Your task to perform on an android device: clear all cookies in the chrome app Image 0: 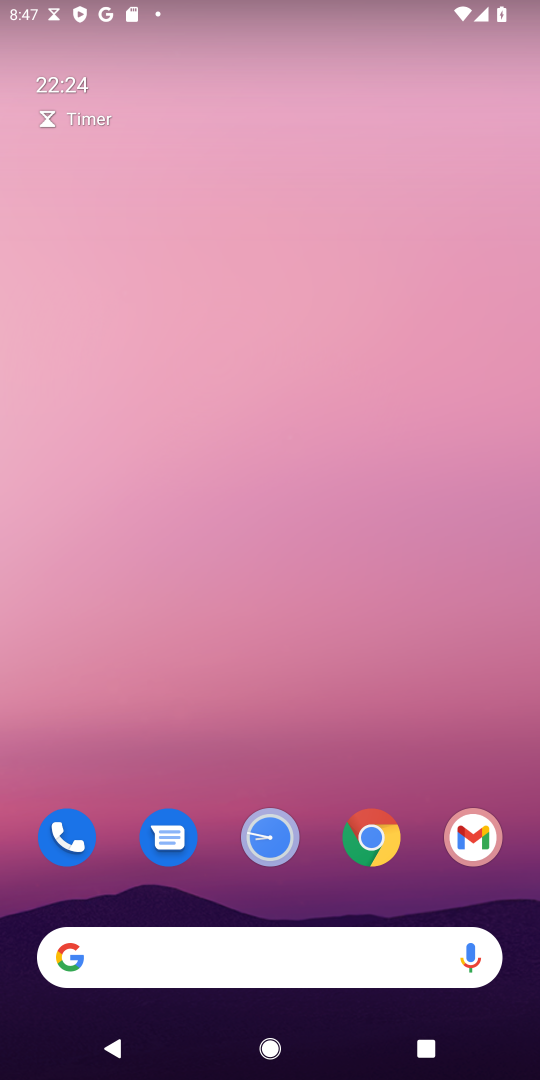
Step 0: click (371, 837)
Your task to perform on an android device: clear all cookies in the chrome app Image 1: 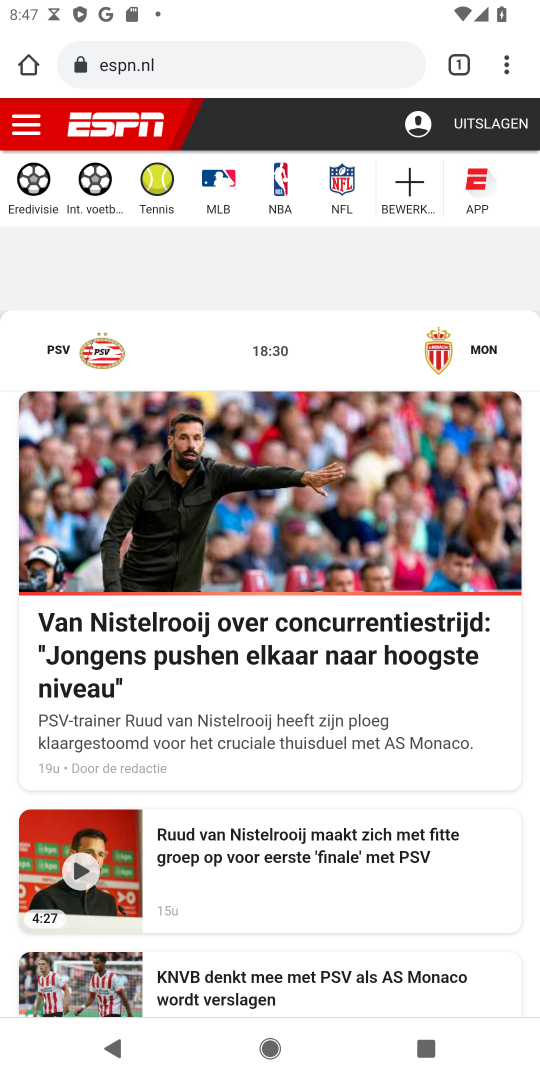
Step 1: click (508, 73)
Your task to perform on an android device: clear all cookies in the chrome app Image 2: 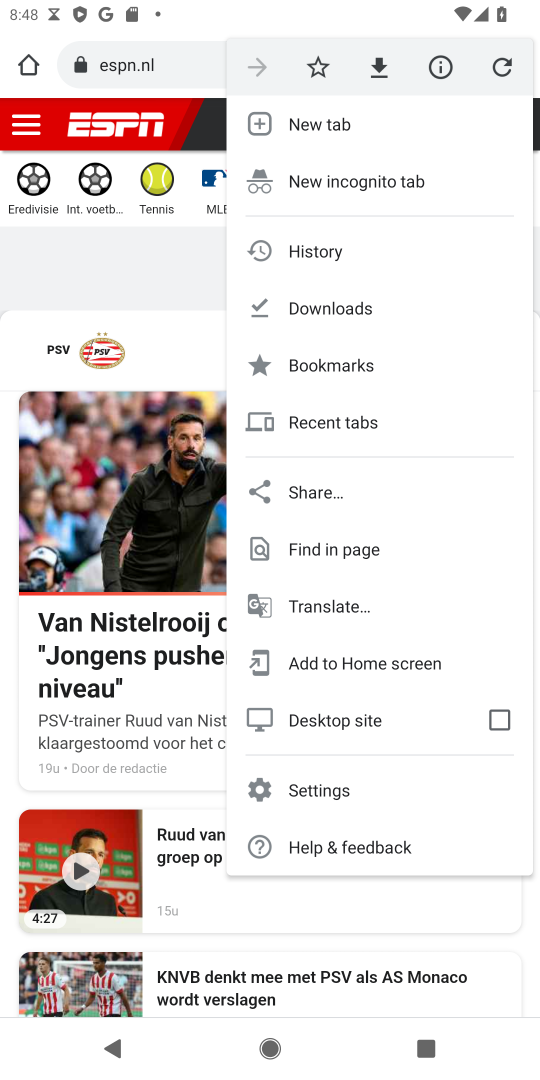
Step 2: click (308, 255)
Your task to perform on an android device: clear all cookies in the chrome app Image 3: 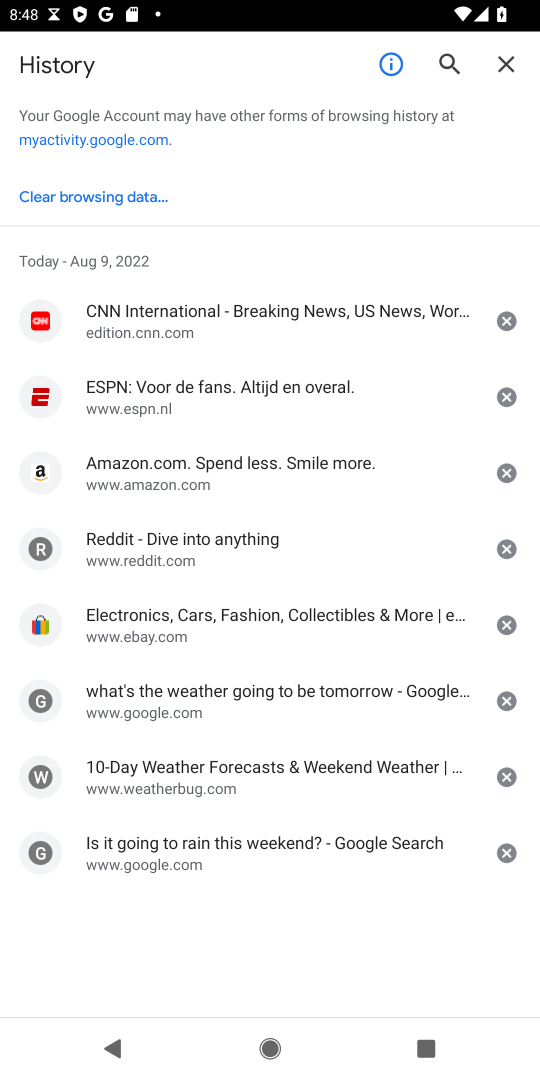
Step 3: click (111, 194)
Your task to perform on an android device: clear all cookies in the chrome app Image 4: 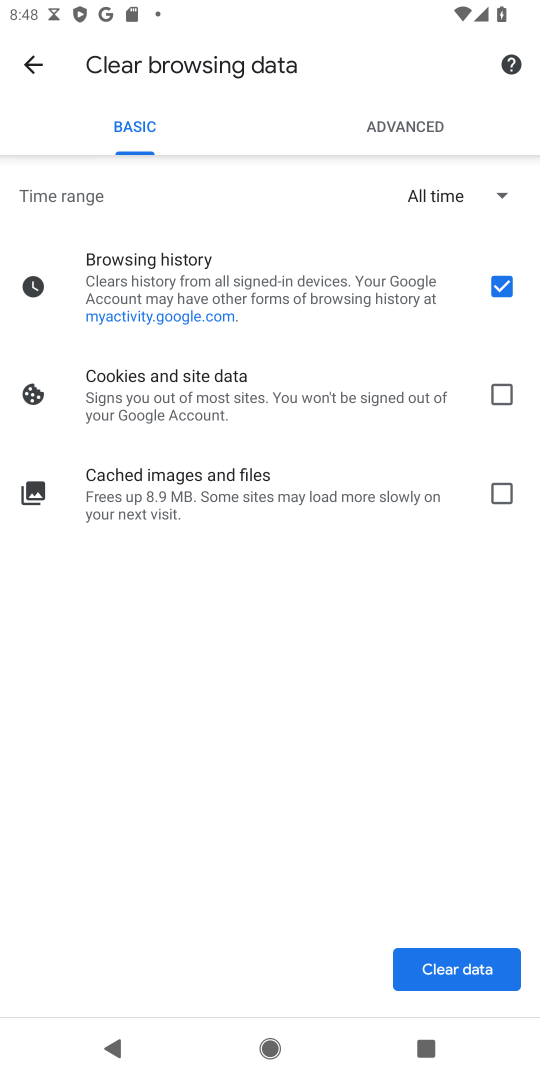
Step 4: click (501, 392)
Your task to perform on an android device: clear all cookies in the chrome app Image 5: 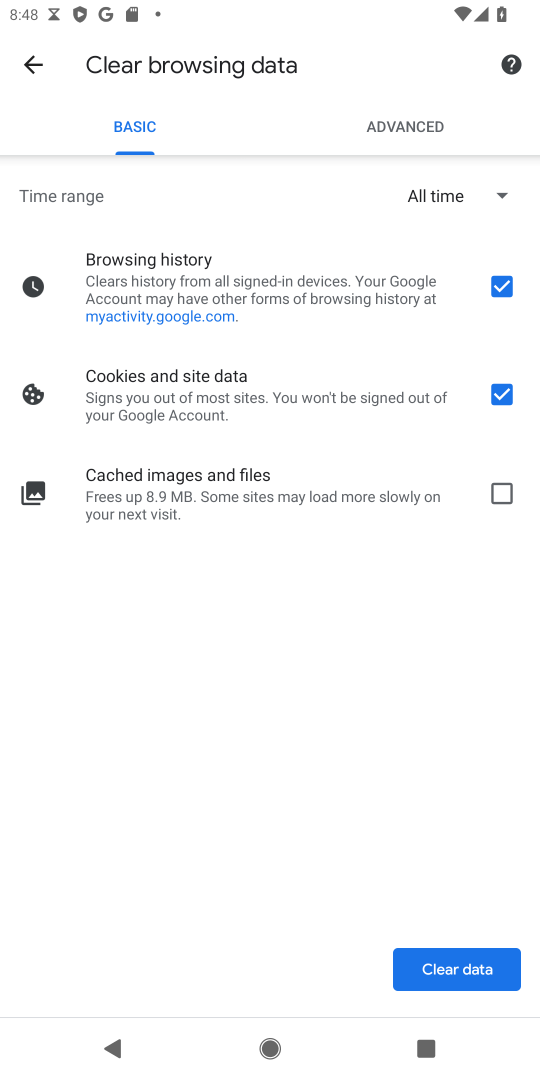
Step 5: click (502, 281)
Your task to perform on an android device: clear all cookies in the chrome app Image 6: 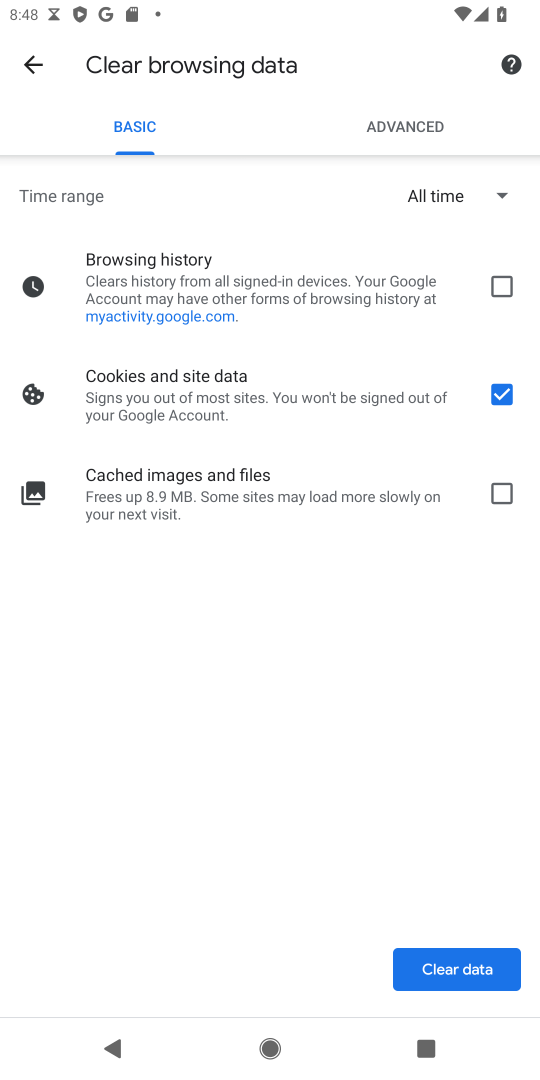
Step 6: click (454, 961)
Your task to perform on an android device: clear all cookies in the chrome app Image 7: 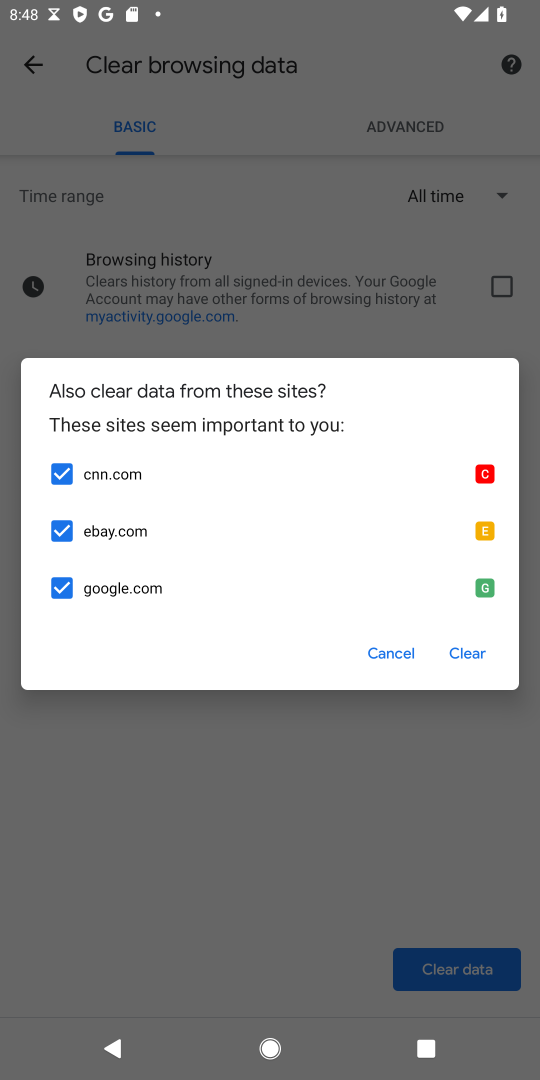
Step 7: click (476, 650)
Your task to perform on an android device: clear all cookies in the chrome app Image 8: 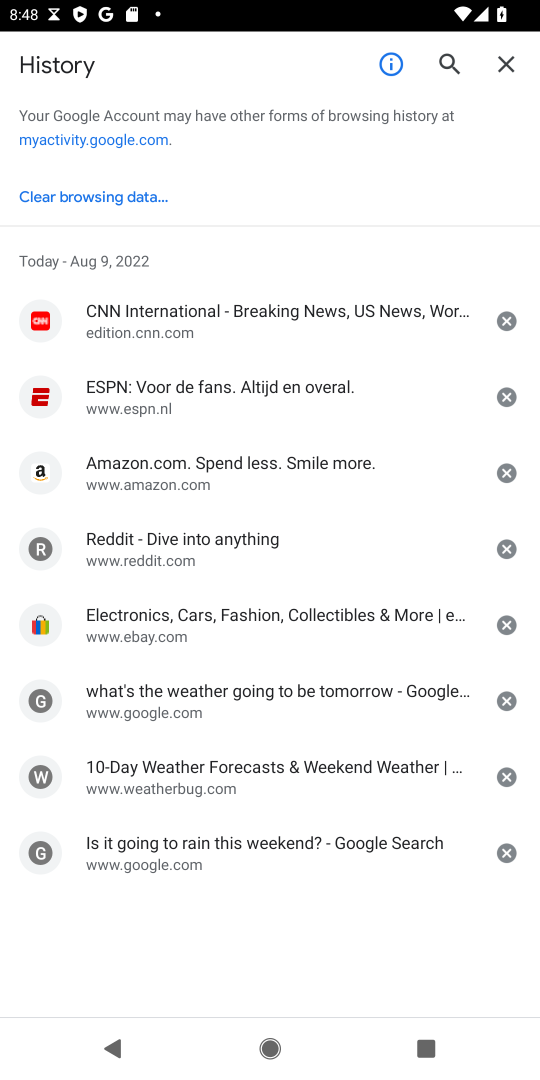
Step 8: task complete